Your task to perform on an android device: Open display settings Image 0: 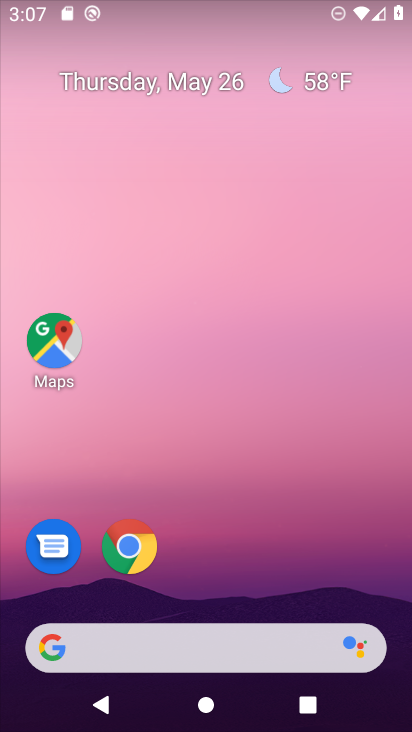
Step 0: press home button
Your task to perform on an android device: Open display settings Image 1: 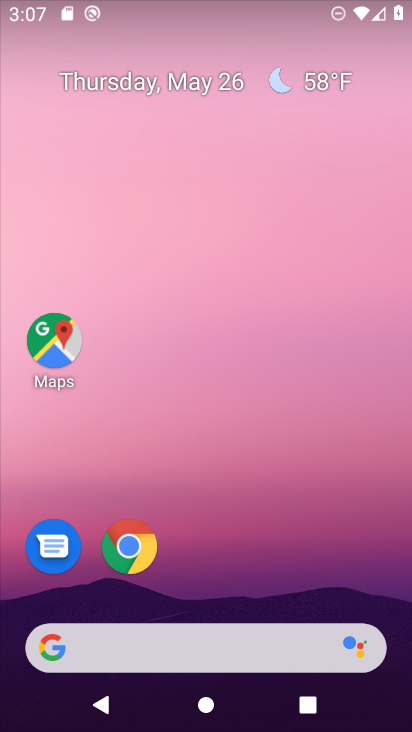
Step 1: drag from (220, 586) to (270, 55)
Your task to perform on an android device: Open display settings Image 2: 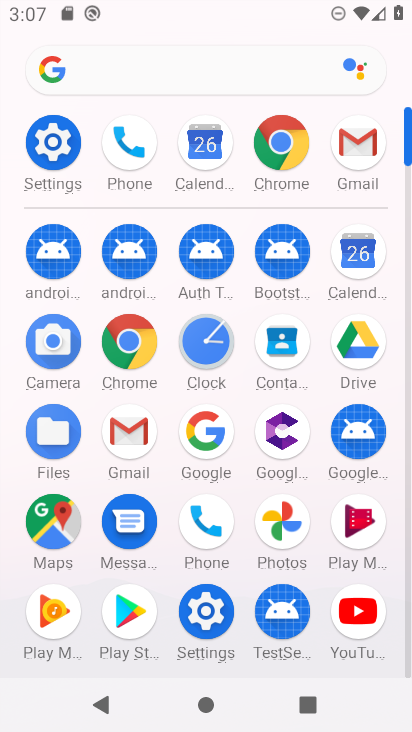
Step 2: click (46, 134)
Your task to perform on an android device: Open display settings Image 3: 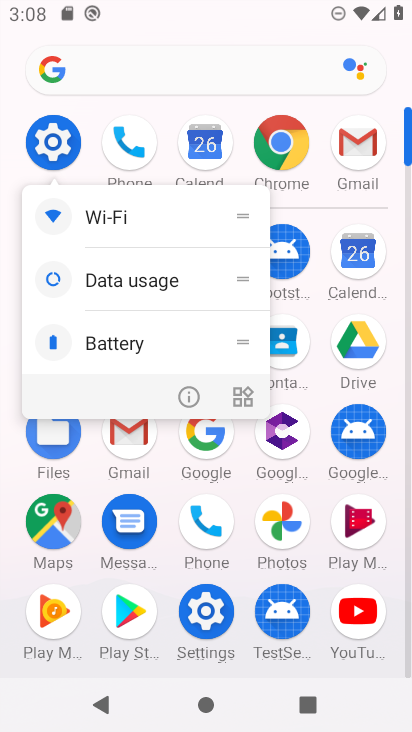
Step 3: click (48, 133)
Your task to perform on an android device: Open display settings Image 4: 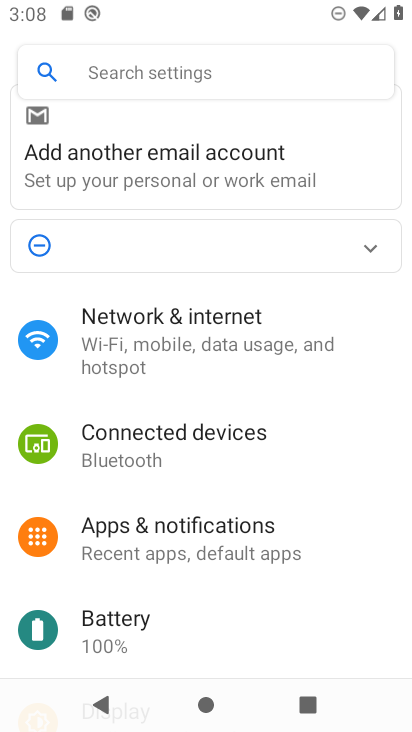
Step 4: drag from (193, 626) to (212, 264)
Your task to perform on an android device: Open display settings Image 5: 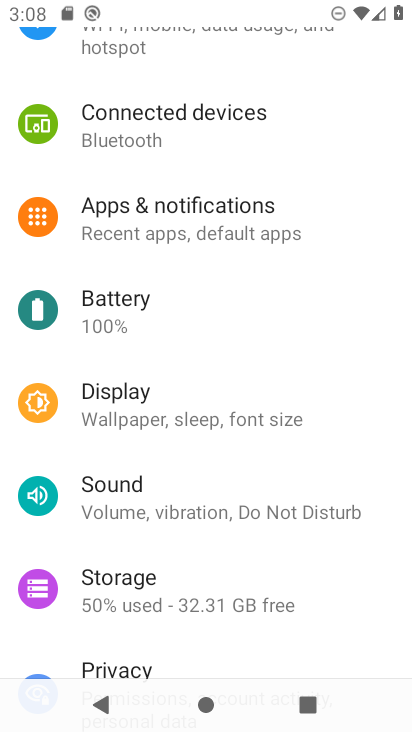
Step 5: click (157, 393)
Your task to perform on an android device: Open display settings Image 6: 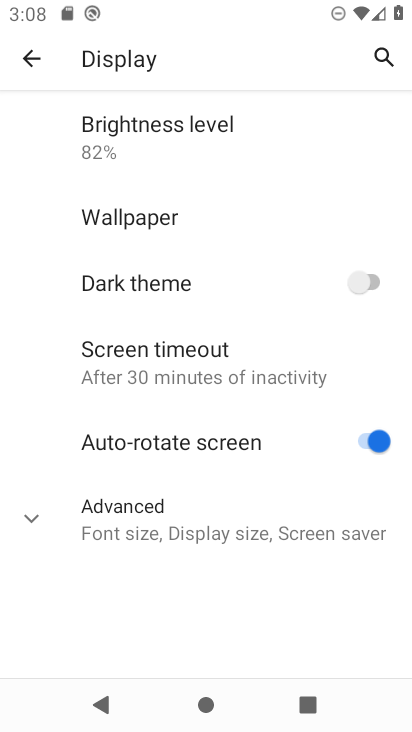
Step 6: click (20, 513)
Your task to perform on an android device: Open display settings Image 7: 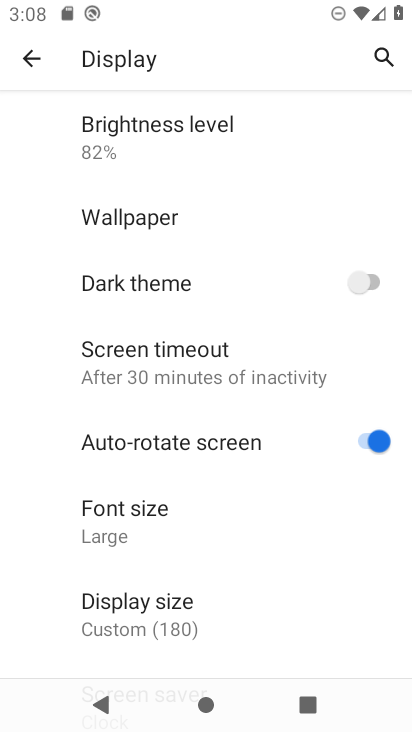
Step 7: task complete